Your task to perform on an android device: Add "macbook pro 15 inch" to the cart on costco, then select checkout. Image 0: 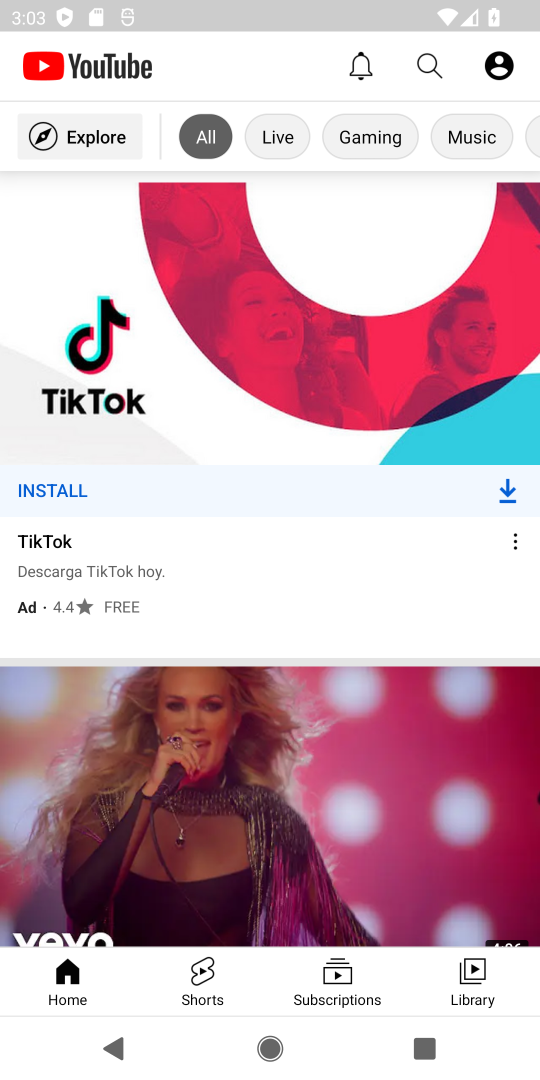
Step 0: press home button
Your task to perform on an android device: Add "macbook pro 15 inch" to the cart on costco, then select checkout. Image 1: 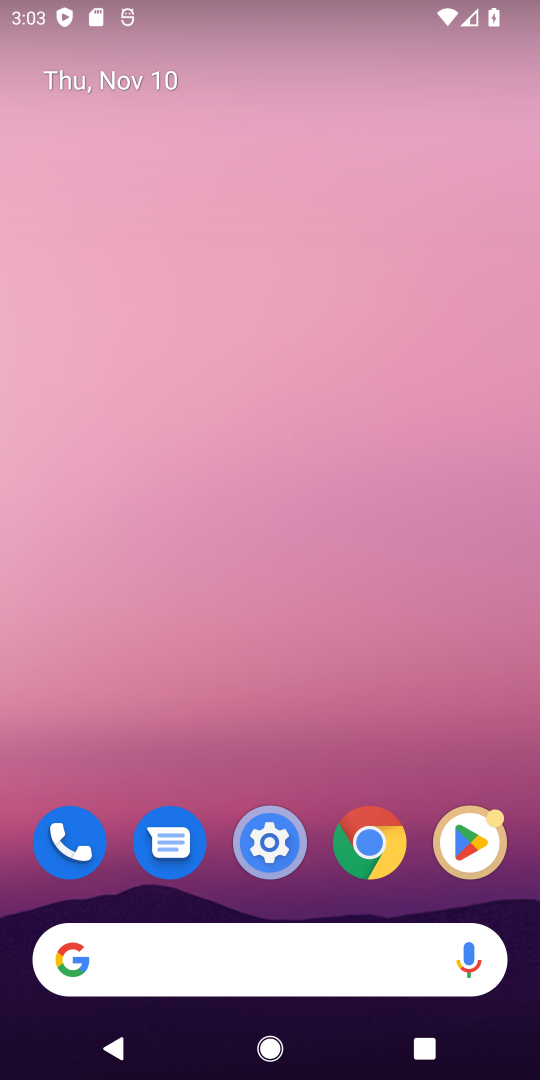
Step 1: click (128, 955)
Your task to perform on an android device: Add "macbook pro 15 inch" to the cart on costco, then select checkout. Image 2: 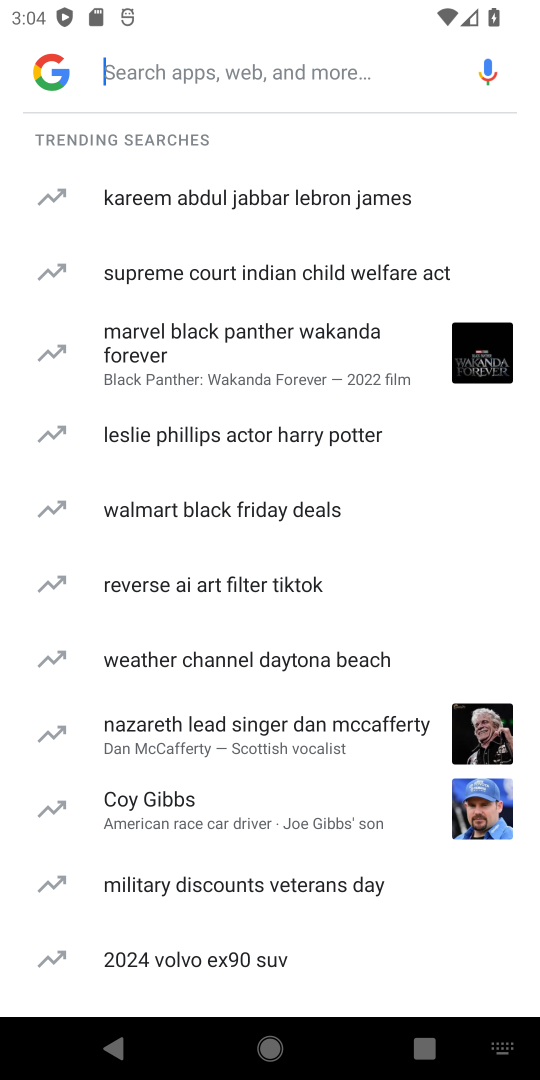
Step 2: type "costco,"
Your task to perform on an android device: Add "macbook pro 15 inch" to the cart on costco, then select checkout. Image 3: 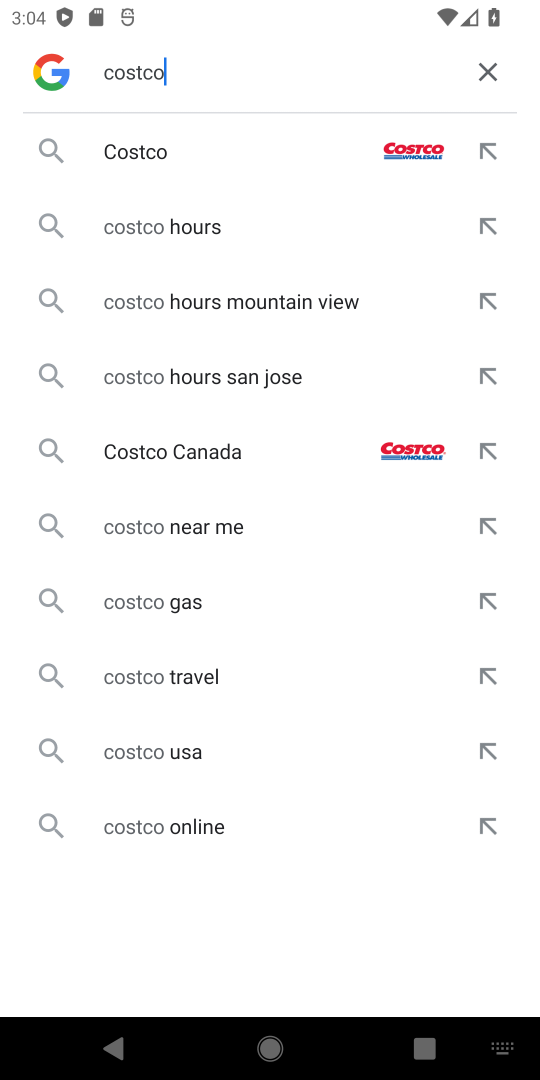
Step 3: press enter
Your task to perform on an android device: Add "macbook pro 15 inch" to the cart on costco, then select checkout. Image 4: 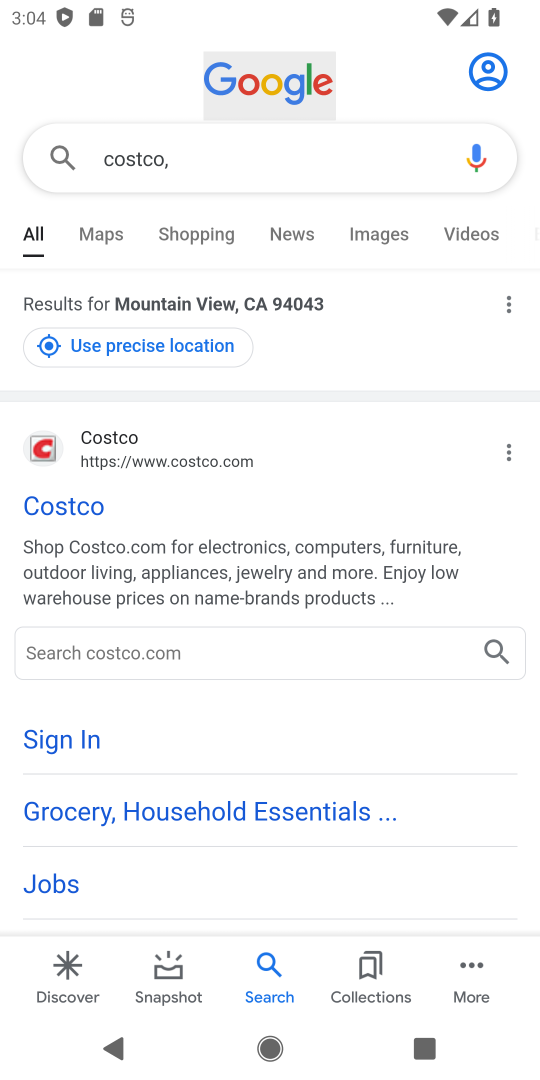
Step 4: click (65, 505)
Your task to perform on an android device: Add "macbook pro 15 inch" to the cart on costco, then select checkout. Image 5: 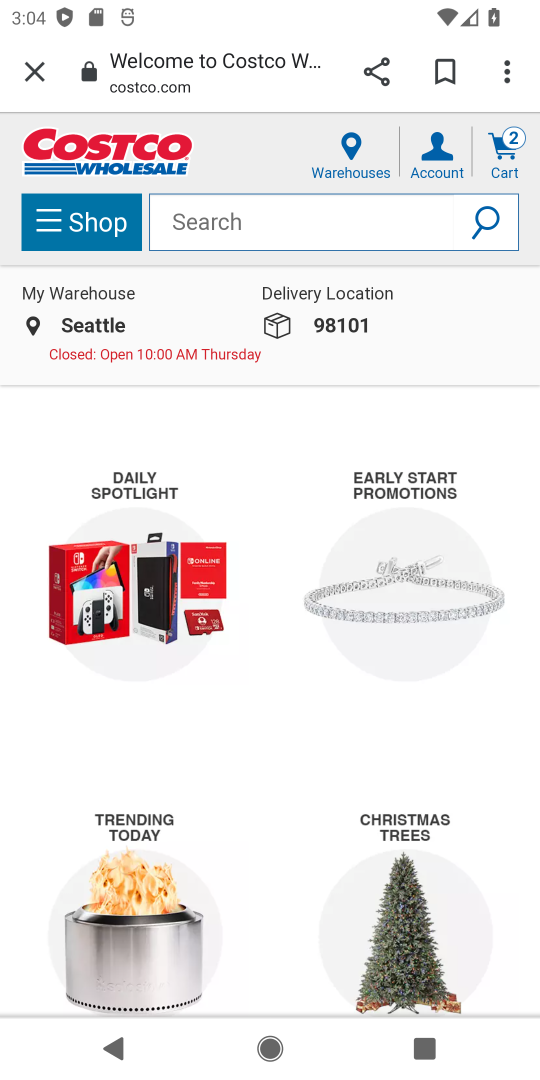
Step 5: click (251, 224)
Your task to perform on an android device: Add "macbook pro 15 inch" to the cart on costco, then select checkout. Image 6: 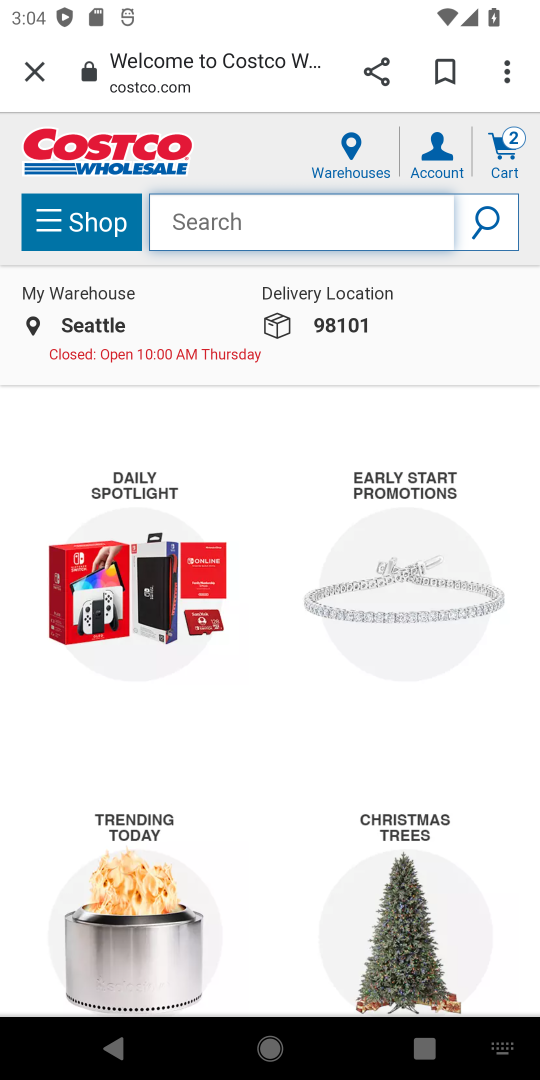
Step 6: type "macbook pro 15 inch"
Your task to perform on an android device: Add "macbook pro 15 inch" to the cart on costco, then select checkout. Image 7: 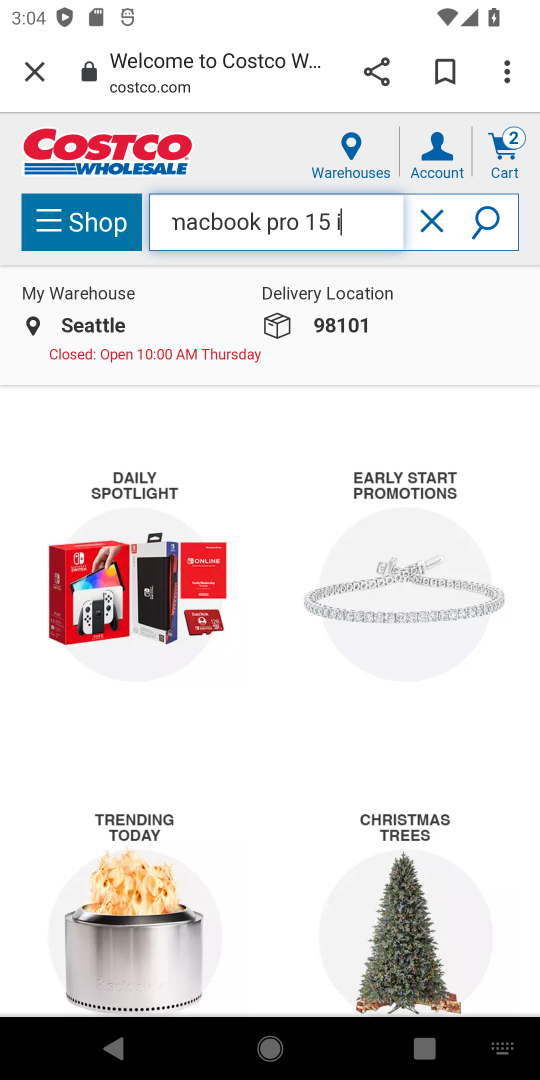
Step 7: press enter
Your task to perform on an android device: Add "macbook pro 15 inch" to the cart on costco, then select checkout. Image 8: 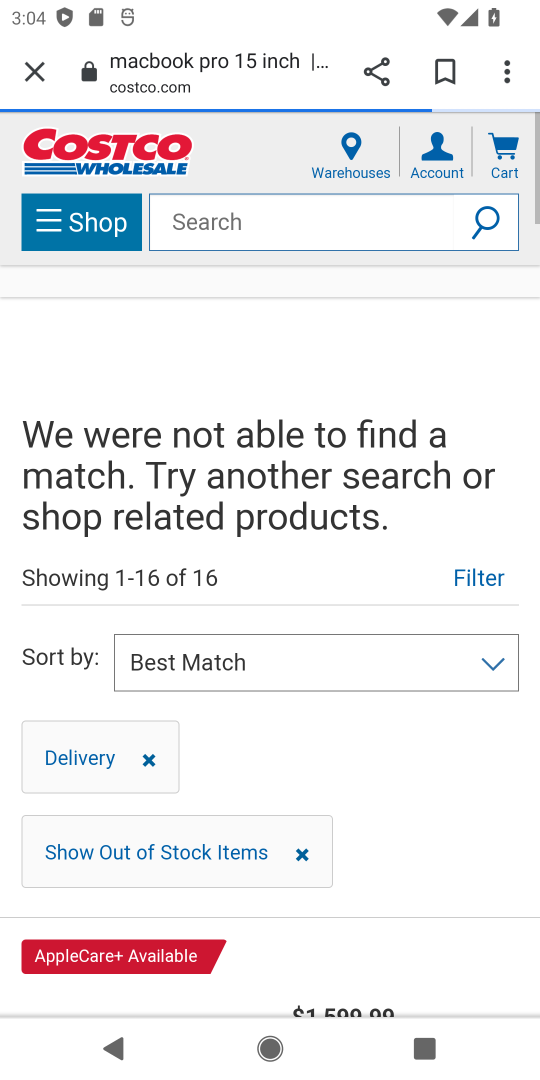
Step 8: press enter
Your task to perform on an android device: Add "macbook pro 15 inch" to the cart on costco, then select checkout. Image 9: 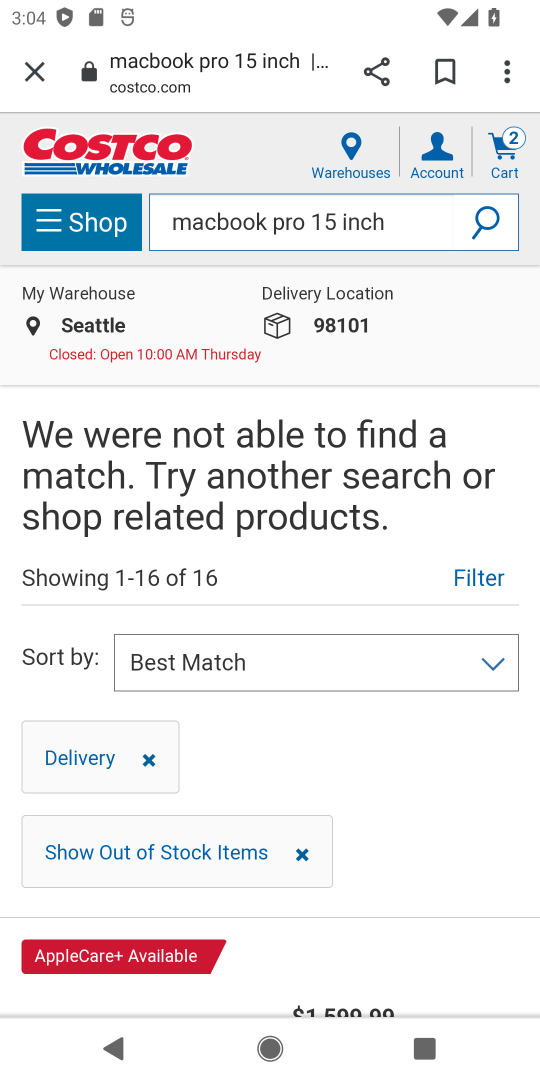
Step 9: drag from (306, 752) to (305, 390)
Your task to perform on an android device: Add "macbook pro 15 inch" to the cart on costco, then select checkout. Image 10: 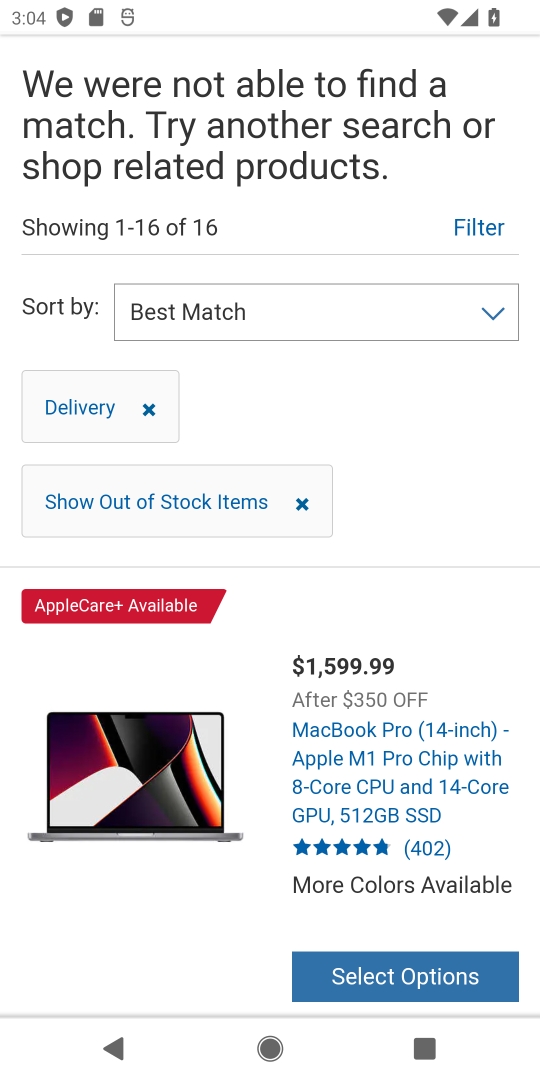
Step 10: drag from (221, 868) to (270, 500)
Your task to perform on an android device: Add "macbook pro 15 inch" to the cart on costco, then select checkout. Image 11: 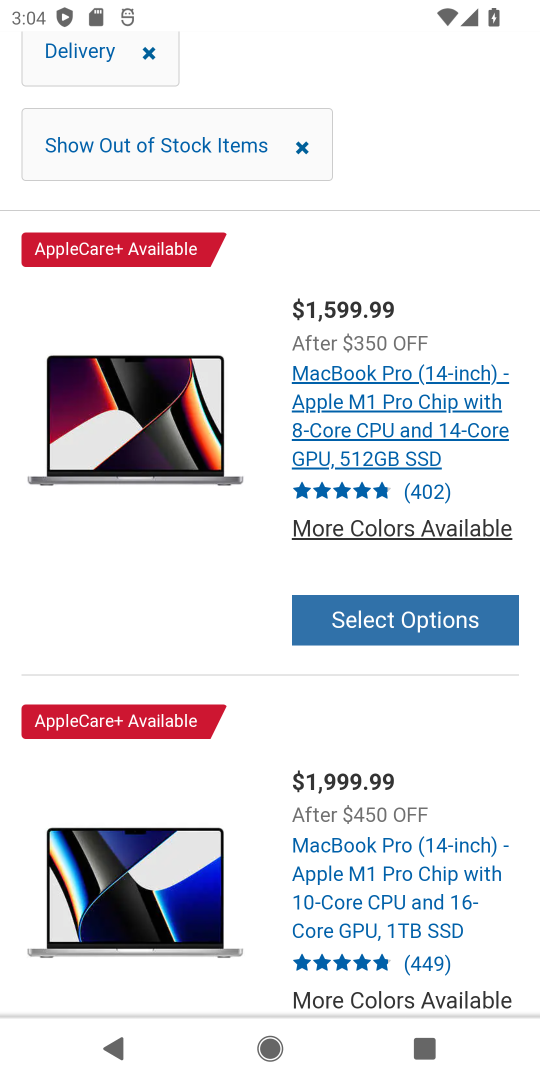
Step 11: click (386, 402)
Your task to perform on an android device: Add "macbook pro 15 inch" to the cart on costco, then select checkout. Image 12: 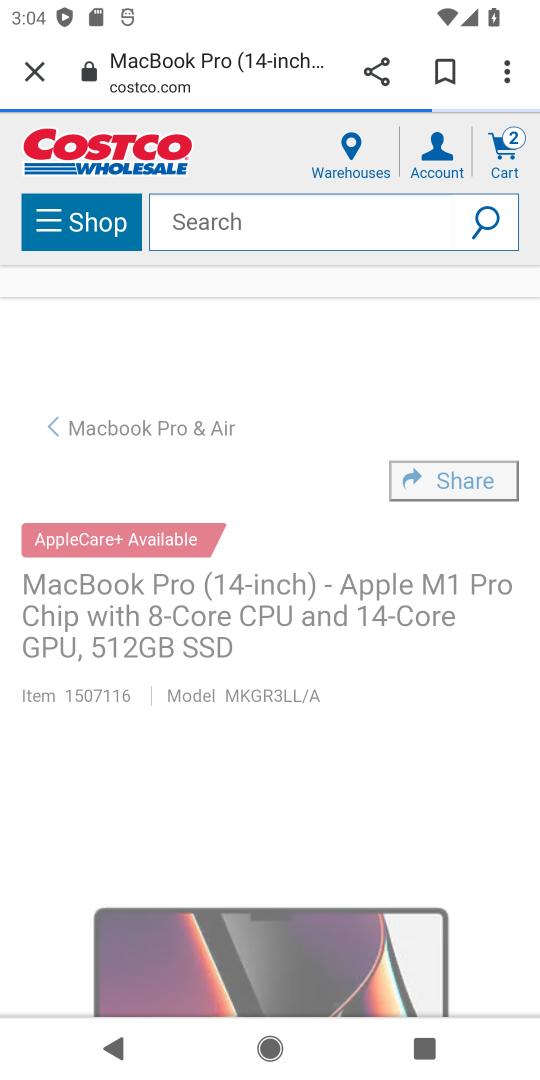
Step 12: drag from (282, 837) to (300, 333)
Your task to perform on an android device: Add "macbook pro 15 inch" to the cart on costco, then select checkout. Image 13: 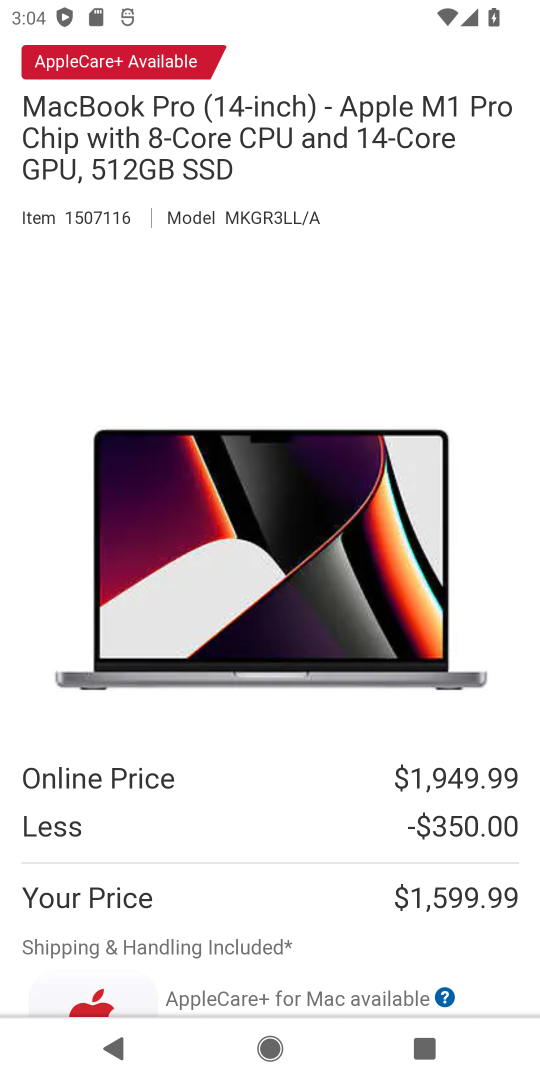
Step 13: drag from (277, 793) to (282, 253)
Your task to perform on an android device: Add "macbook pro 15 inch" to the cart on costco, then select checkout. Image 14: 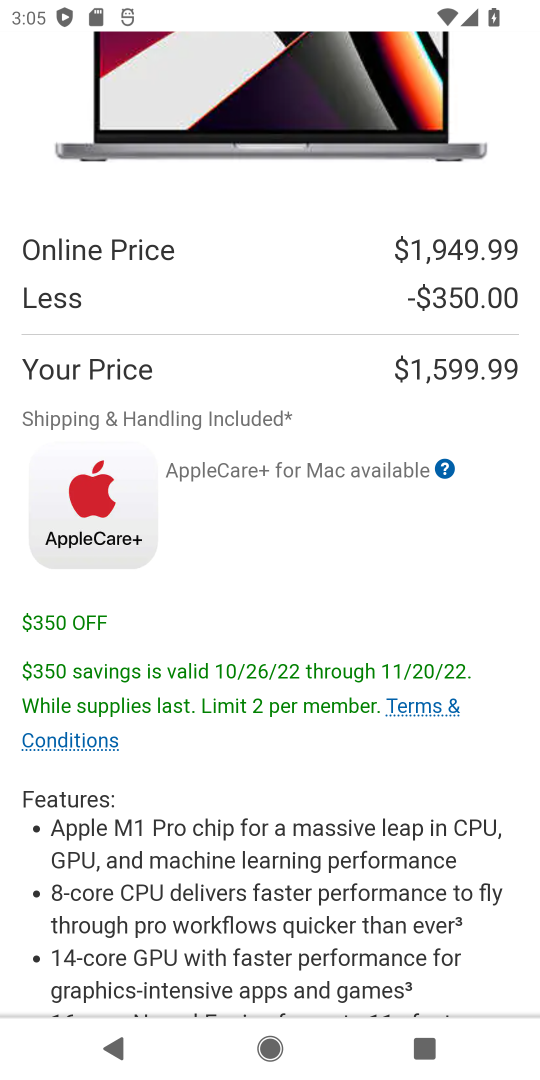
Step 14: drag from (306, 854) to (328, 530)
Your task to perform on an android device: Add "macbook pro 15 inch" to the cart on costco, then select checkout. Image 15: 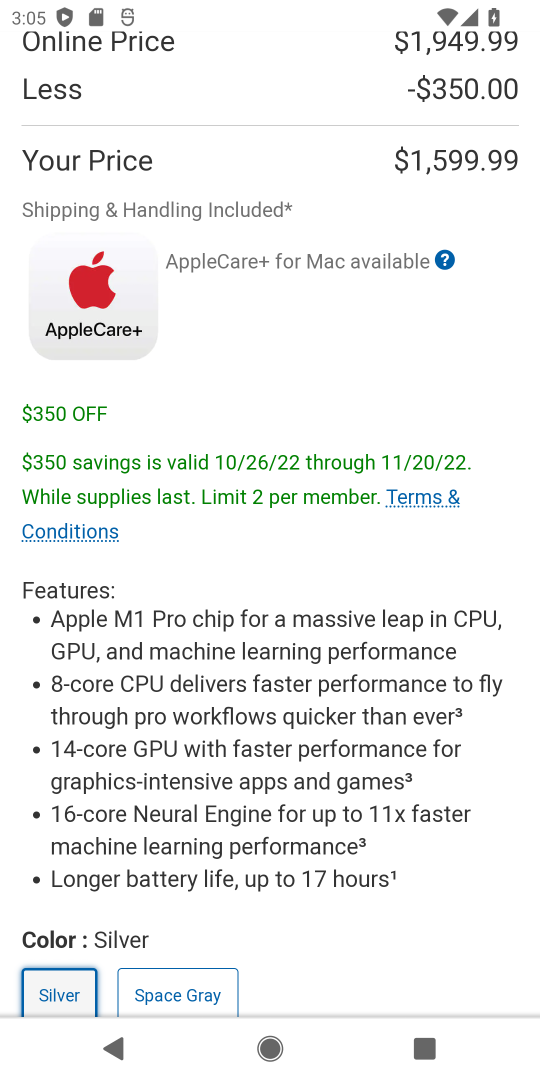
Step 15: drag from (341, 857) to (351, 390)
Your task to perform on an android device: Add "macbook pro 15 inch" to the cart on costco, then select checkout. Image 16: 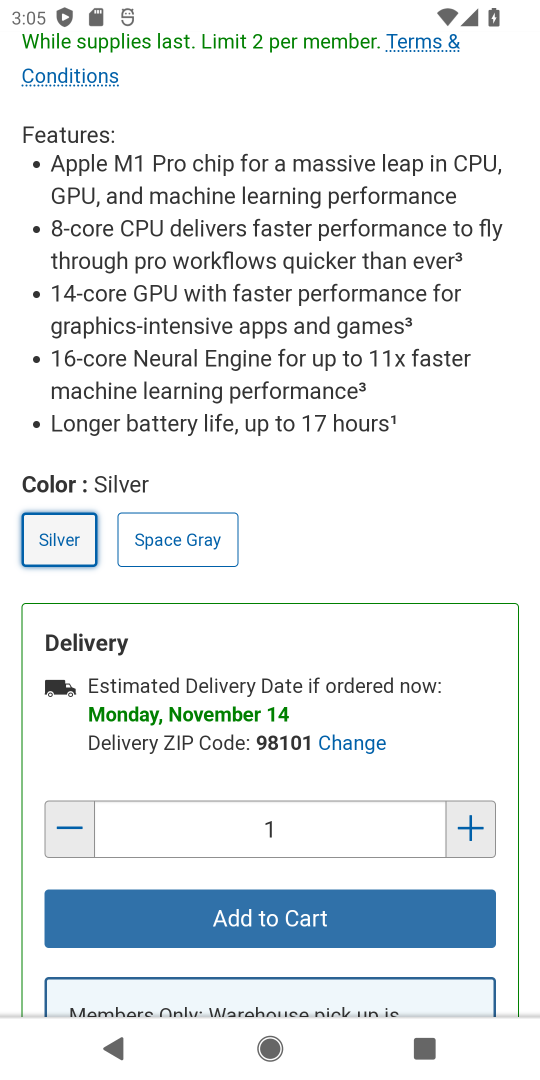
Step 16: click (259, 911)
Your task to perform on an android device: Add "macbook pro 15 inch" to the cart on costco, then select checkout. Image 17: 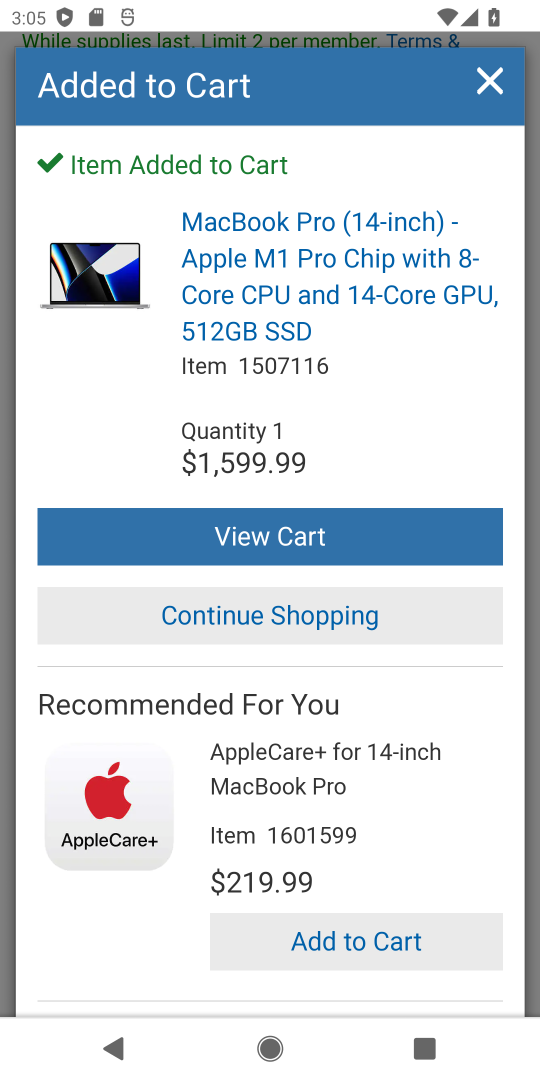
Step 17: task complete